Your task to perform on an android device: open app "Microsoft Excel" Image 0: 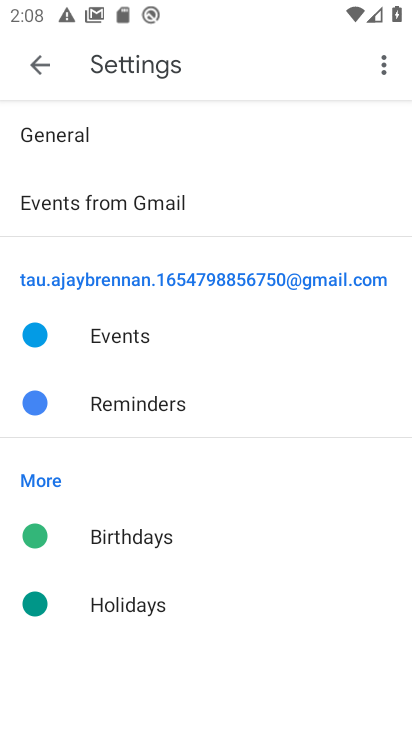
Step 0: press home button
Your task to perform on an android device: open app "Microsoft Excel" Image 1: 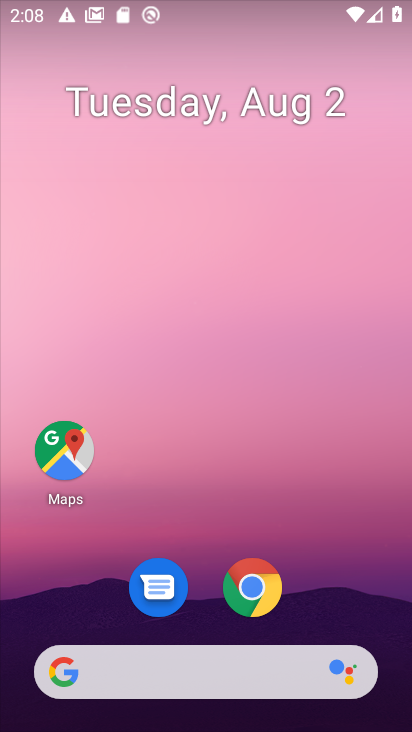
Step 1: drag from (199, 530) to (247, 135)
Your task to perform on an android device: open app "Microsoft Excel" Image 2: 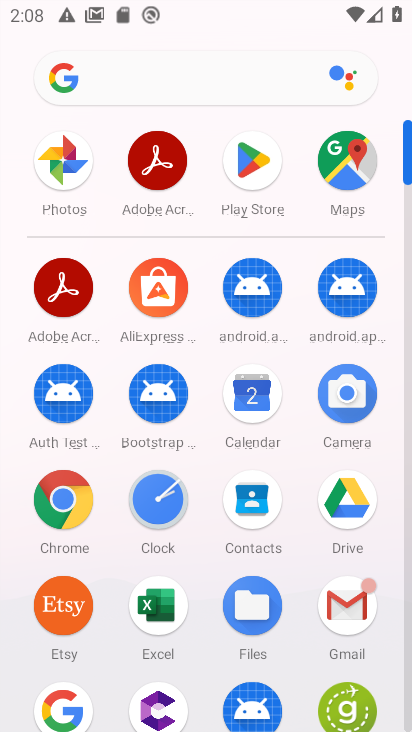
Step 2: click (249, 171)
Your task to perform on an android device: open app "Microsoft Excel" Image 3: 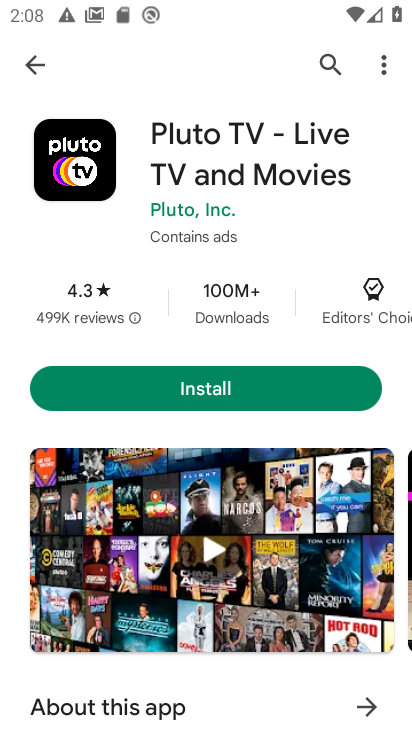
Step 3: click (318, 62)
Your task to perform on an android device: open app "Microsoft Excel" Image 4: 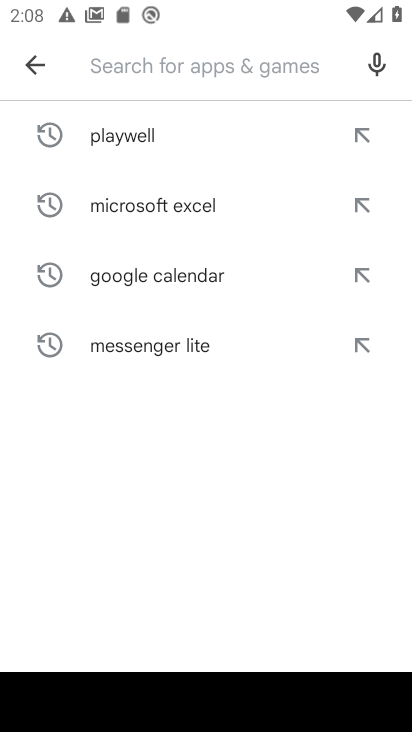
Step 4: type "Microsoft Excel"
Your task to perform on an android device: open app "Microsoft Excel" Image 5: 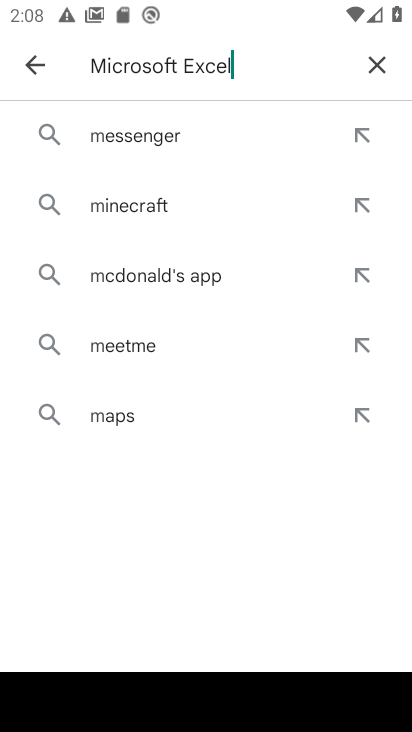
Step 5: type ""
Your task to perform on an android device: open app "Microsoft Excel" Image 6: 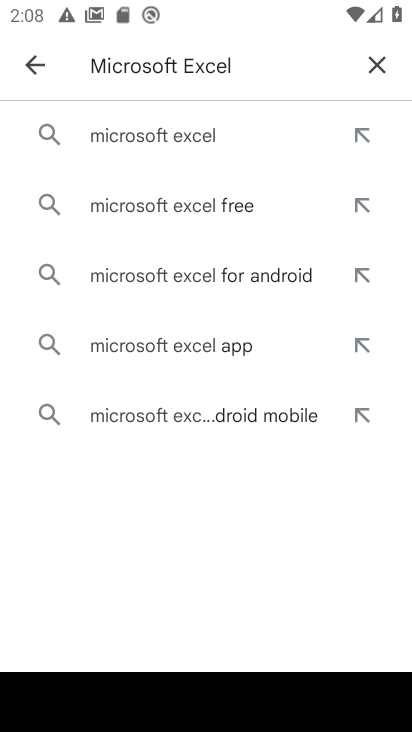
Step 6: click (194, 128)
Your task to perform on an android device: open app "Microsoft Excel" Image 7: 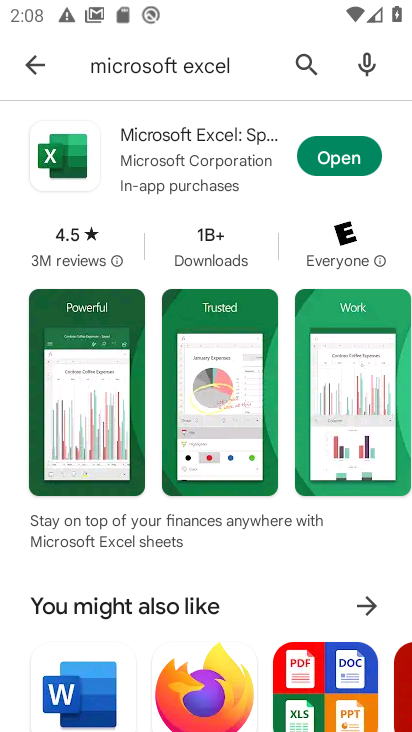
Step 7: click (322, 161)
Your task to perform on an android device: open app "Microsoft Excel" Image 8: 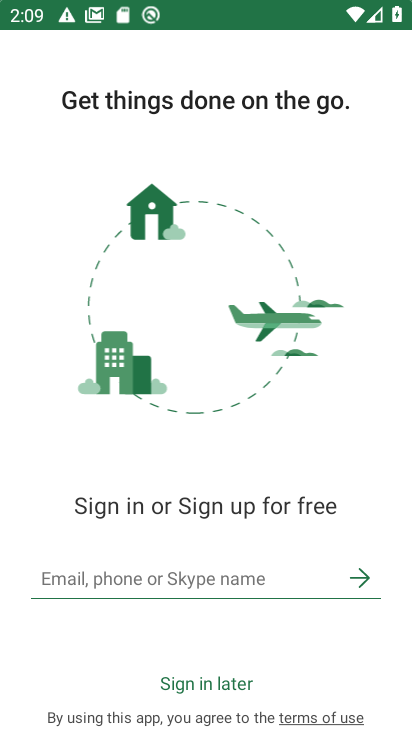
Step 8: task complete